Your task to perform on an android device: Open Chrome and go to the settings page Image 0: 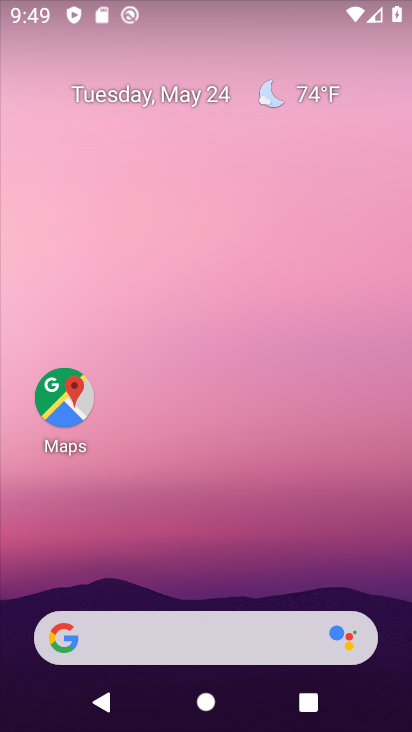
Step 0: drag from (227, 600) to (120, 79)
Your task to perform on an android device: Open Chrome and go to the settings page Image 1: 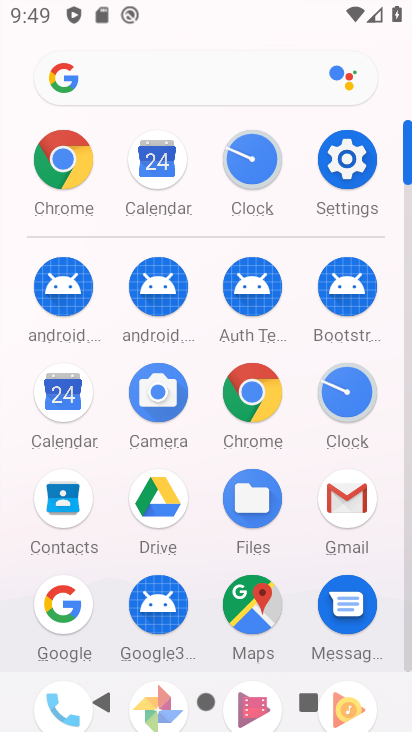
Step 1: click (248, 376)
Your task to perform on an android device: Open Chrome and go to the settings page Image 2: 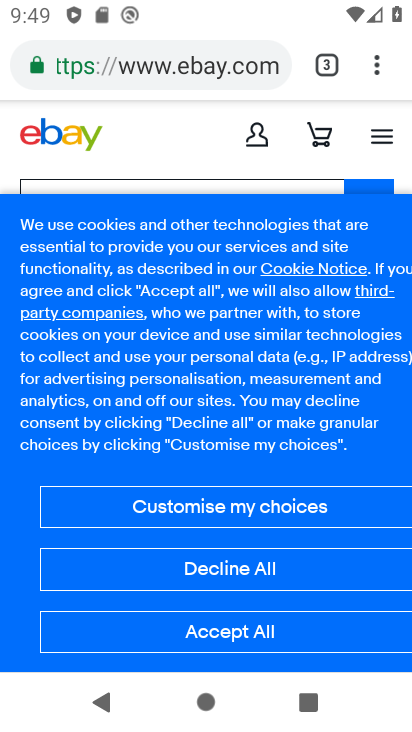
Step 2: click (378, 68)
Your task to perform on an android device: Open Chrome and go to the settings page Image 3: 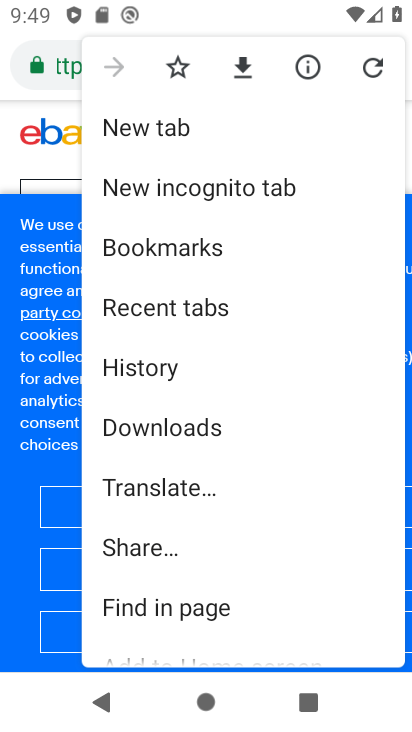
Step 3: drag from (300, 574) to (241, 192)
Your task to perform on an android device: Open Chrome and go to the settings page Image 4: 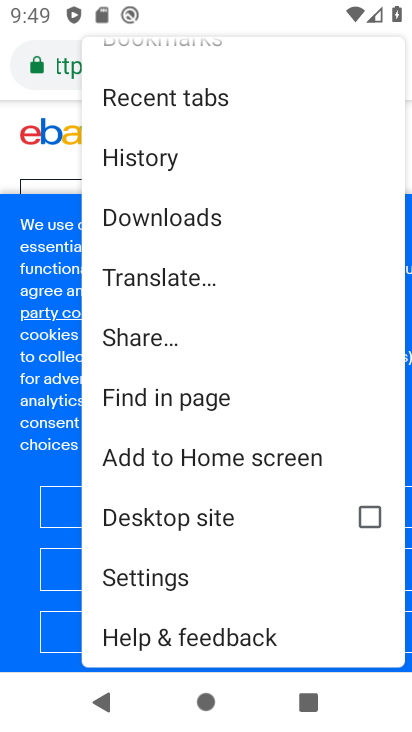
Step 4: click (135, 563)
Your task to perform on an android device: Open Chrome and go to the settings page Image 5: 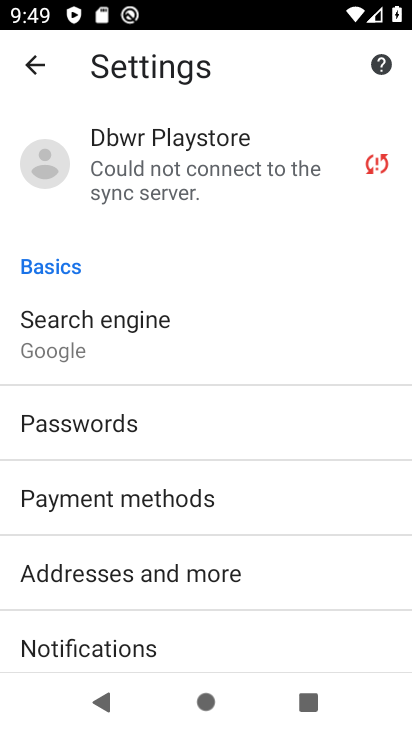
Step 5: task complete